Your task to perform on an android device: Go to Maps Image 0: 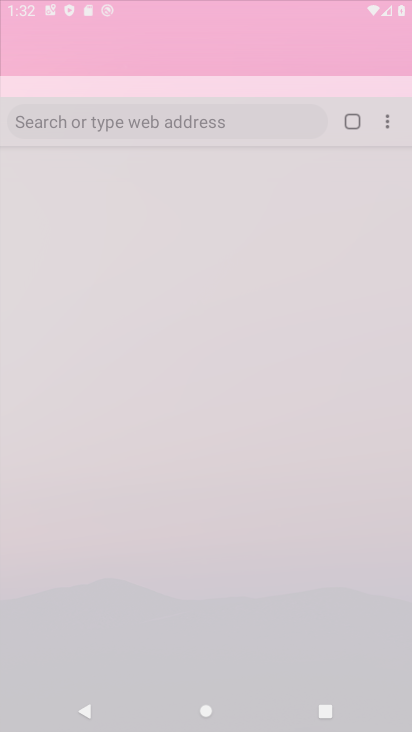
Step 0: click (339, 119)
Your task to perform on an android device: Go to Maps Image 1: 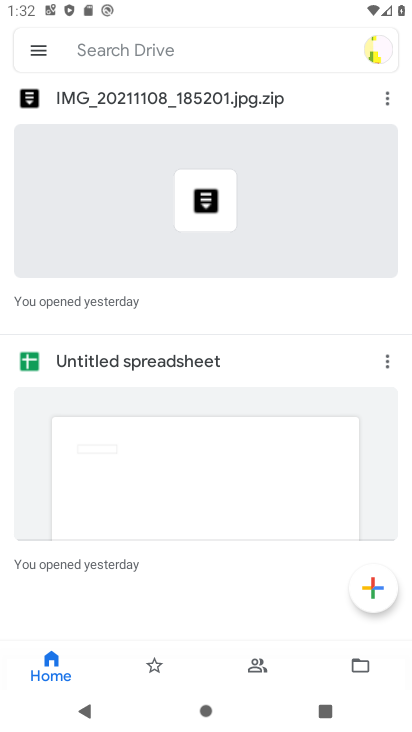
Step 1: press home button
Your task to perform on an android device: Go to Maps Image 2: 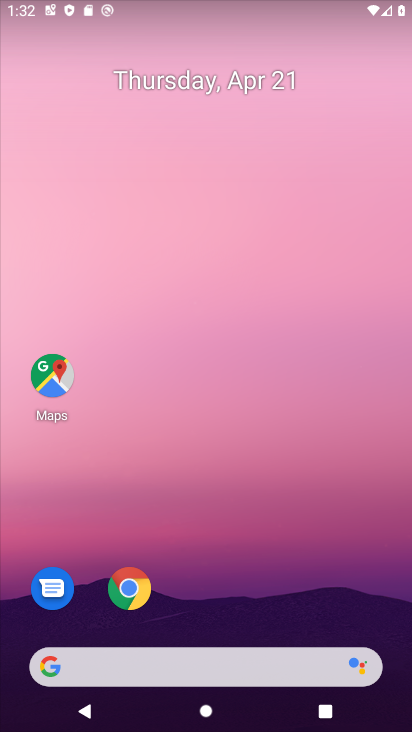
Step 2: drag from (220, 612) to (214, 31)
Your task to perform on an android device: Go to Maps Image 3: 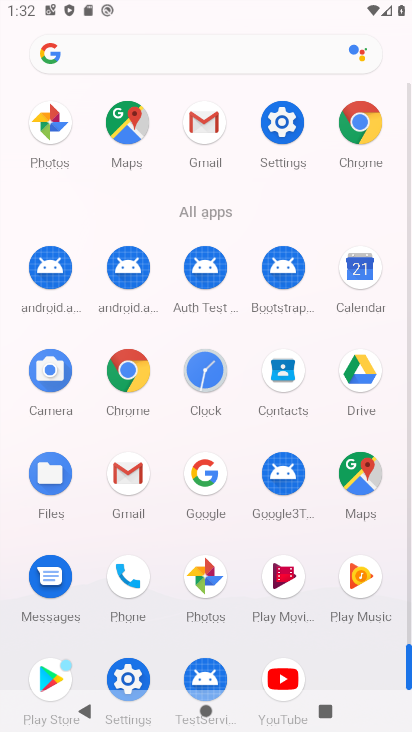
Step 3: click (365, 493)
Your task to perform on an android device: Go to Maps Image 4: 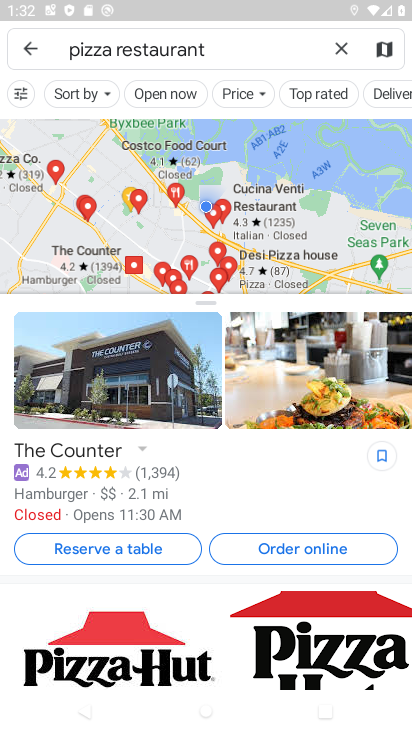
Step 4: task complete